Your task to perform on an android device: What's on my calendar tomorrow? Image 0: 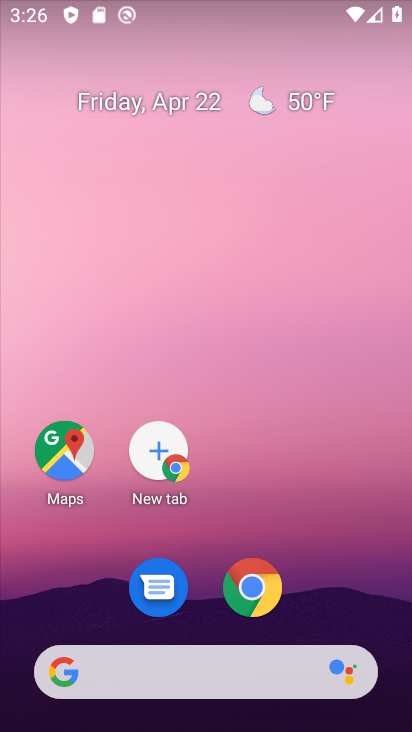
Step 0: click (119, 96)
Your task to perform on an android device: What's on my calendar tomorrow? Image 1: 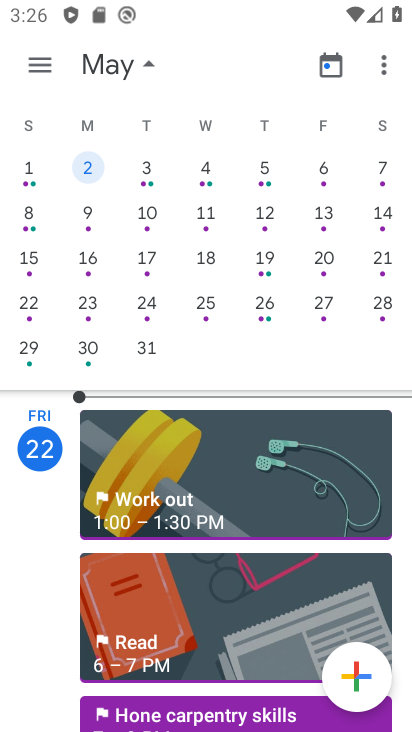
Step 1: click (115, 100)
Your task to perform on an android device: What's on my calendar tomorrow? Image 2: 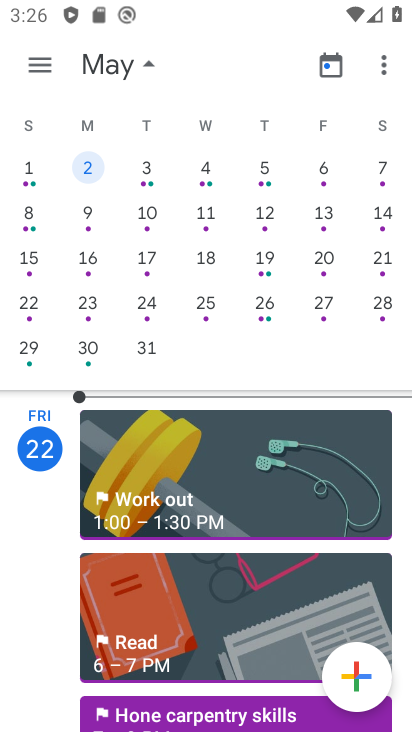
Step 2: click (138, 164)
Your task to perform on an android device: What's on my calendar tomorrow? Image 3: 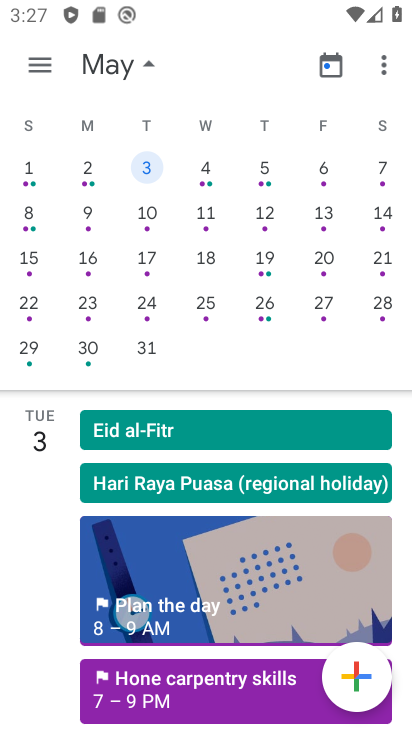
Step 3: task complete